Your task to perform on an android device: install app "Roku - Official Remote Control" Image 0: 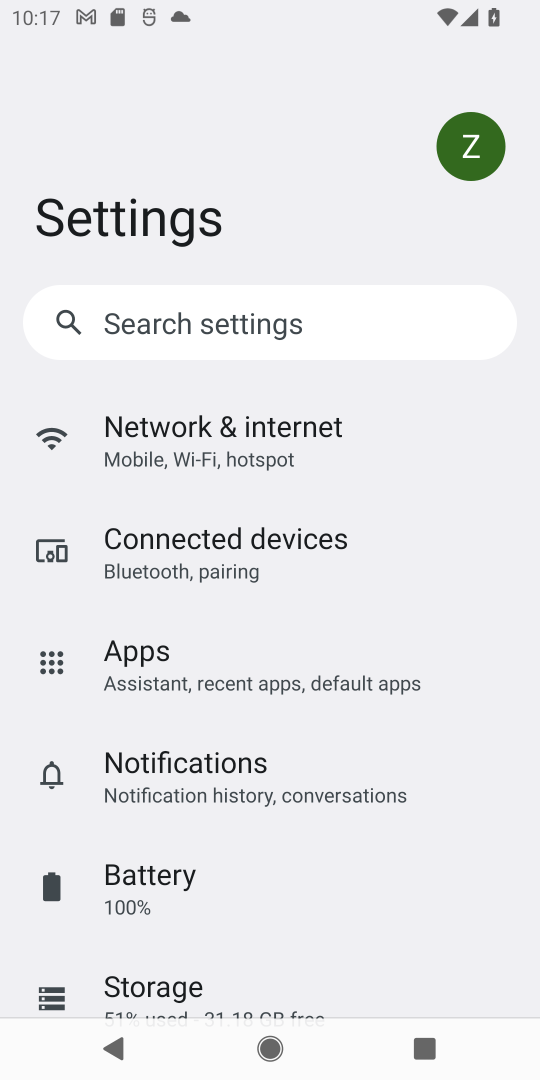
Step 0: press home button
Your task to perform on an android device: install app "Roku - Official Remote Control" Image 1: 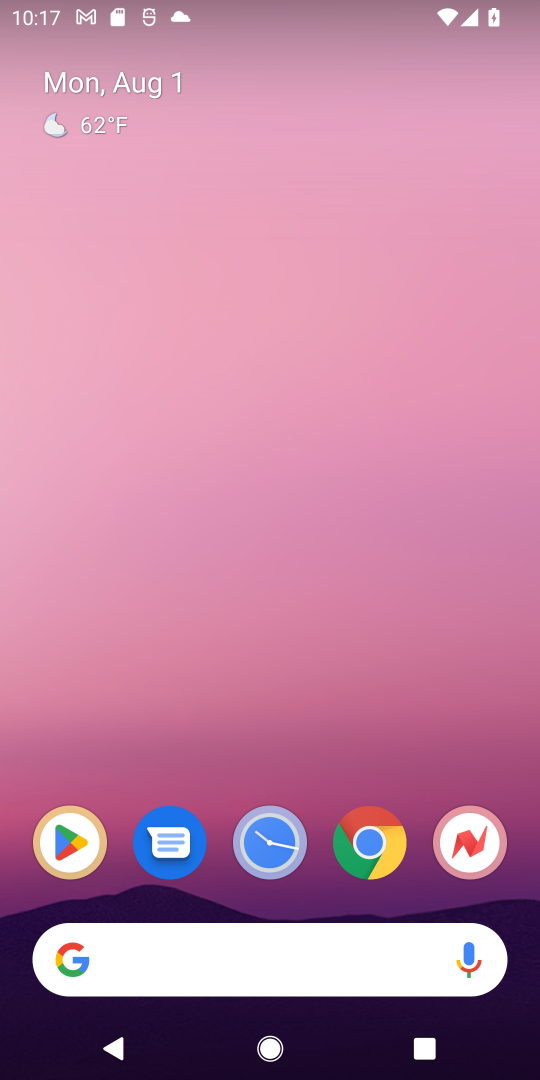
Step 1: click (70, 859)
Your task to perform on an android device: install app "Roku - Official Remote Control" Image 2: 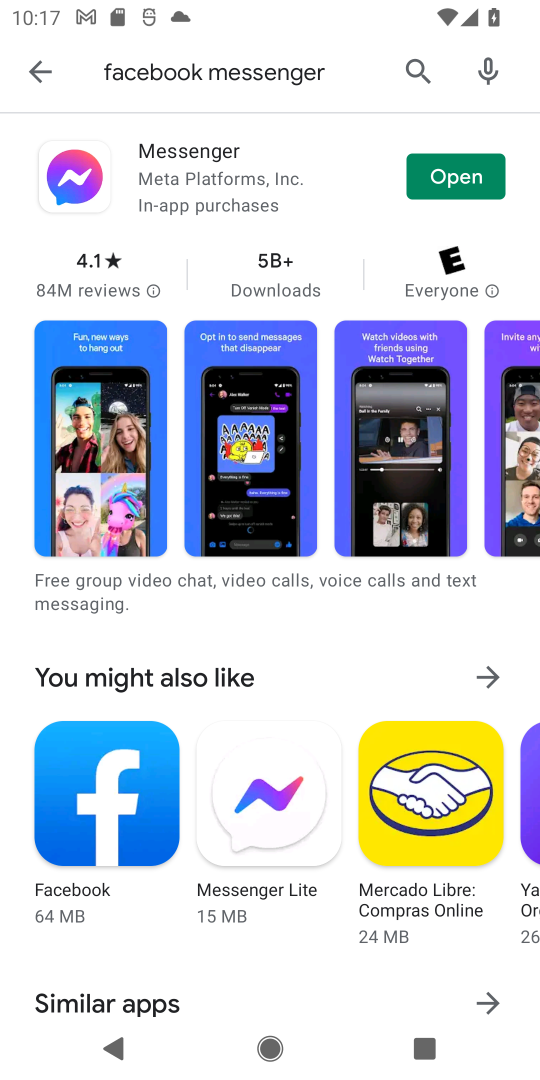
Step 2: click (405, 69)
Your task to perform on an android device: install app "Roku - Official Remote Control" Image 3: 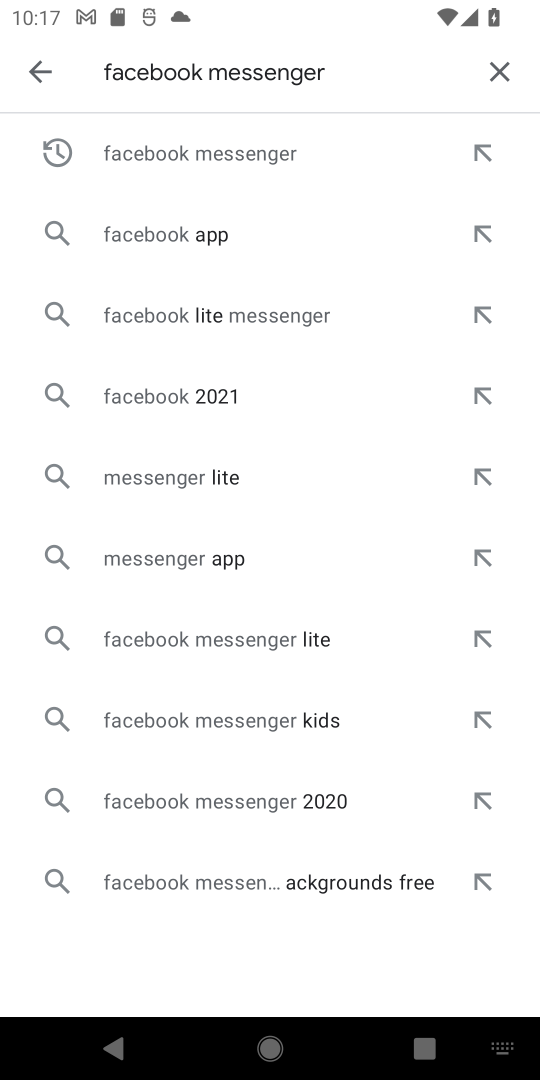
Step 3: click (498, 68)
Your task to perform on an android device: install app "Roku - Official Remote Control" Image 4: 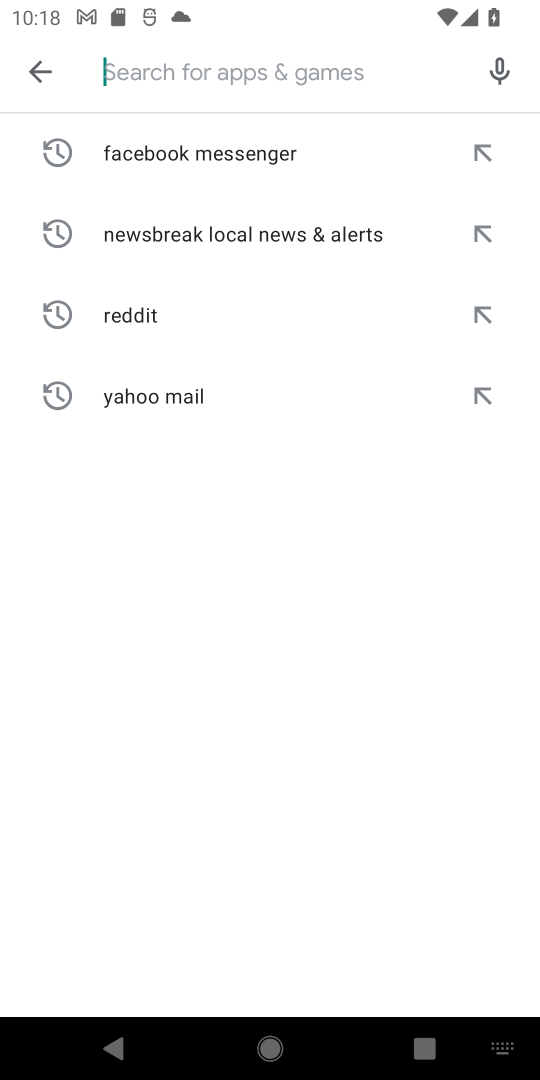
Step 4: click (212, 64)
Your task to perform on an android device: install app "Roku - Official Remote Control" Image 5: 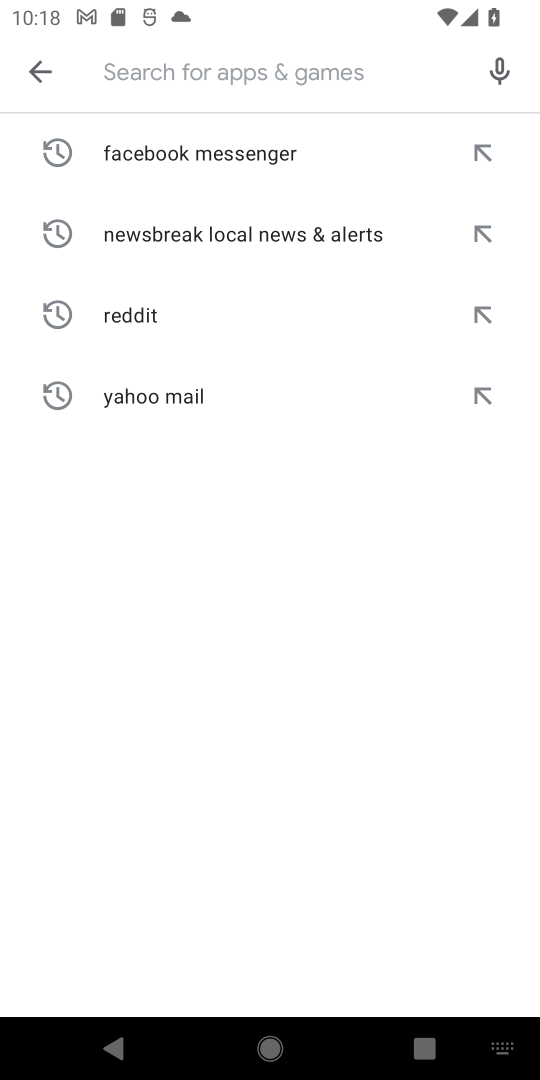
Step 5: type "Roku"
Your task to perform on an android device: install app "Roku - Official Remote Control" Image 6: 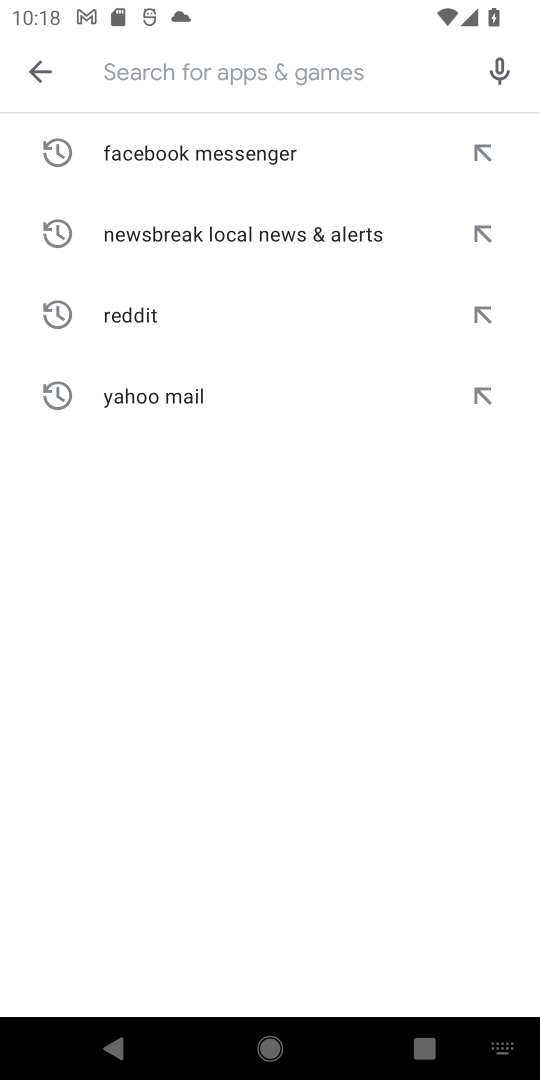
Step 6: click (176, 625)
Your task to perform on an android device: install app "Roku - Official Remote Control" Image 7: 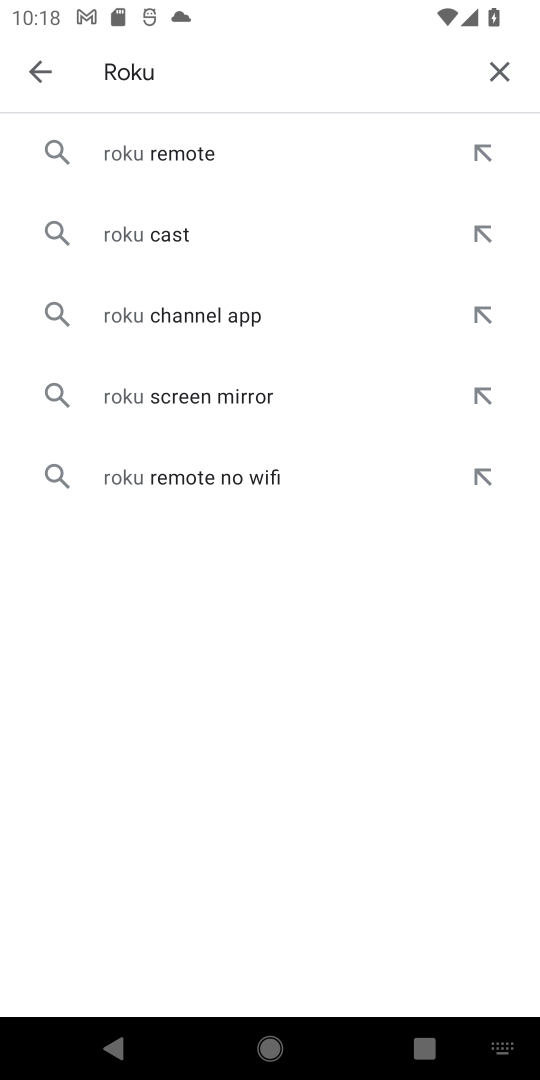
Step 7: click (210, 154)
Your task to perform on an android device: install app "Roku - Official Remote Control" Image 8: 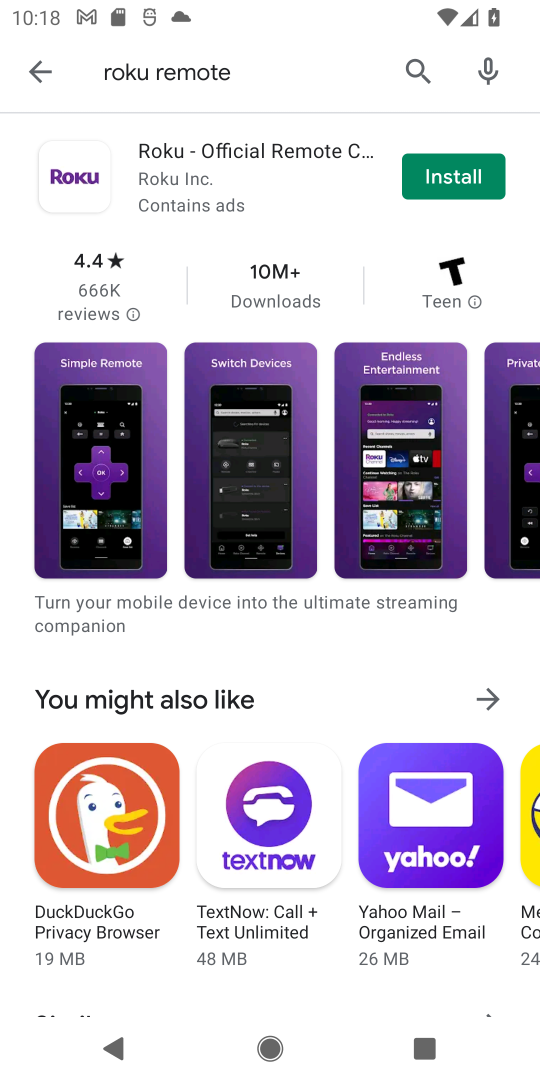
Step 8: click (453, 164)
Your task to perform on an android device: install app "Roku - Official Remote Control" Image 9: 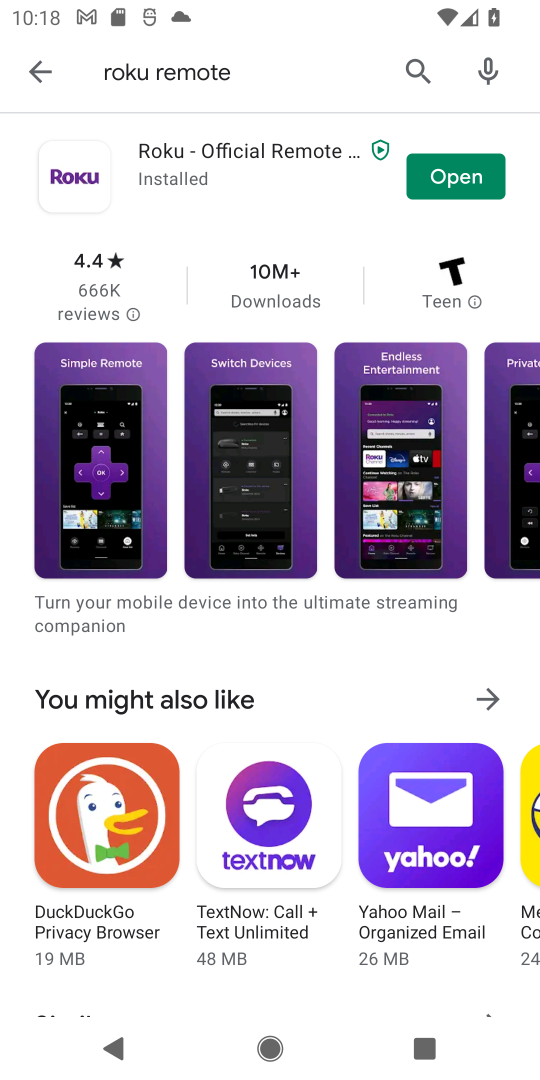
Step 9: task complete